Your task to perform on an android device: all mails in gmail Image 0: 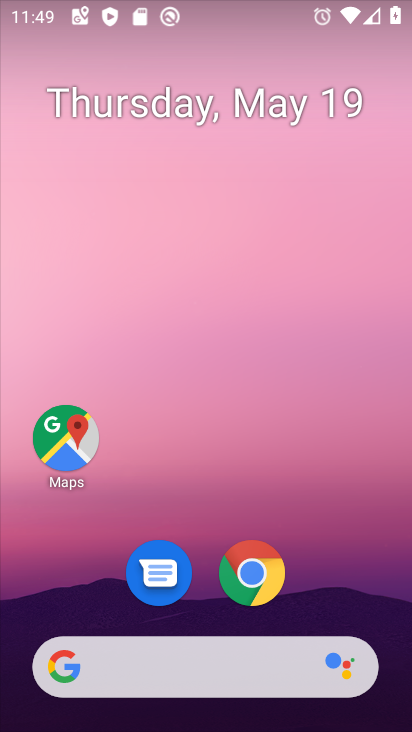
Step 0: drag from (209, 598) to (226, 108)
Your task to perform on an android device: all mails in gmail Image 1: 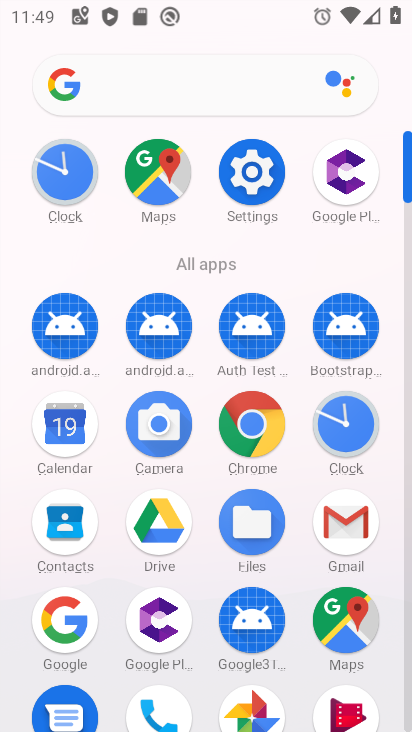
Step 1: click (343, 517)
Your task to perform on an android device: all mails in gmail Image 2: 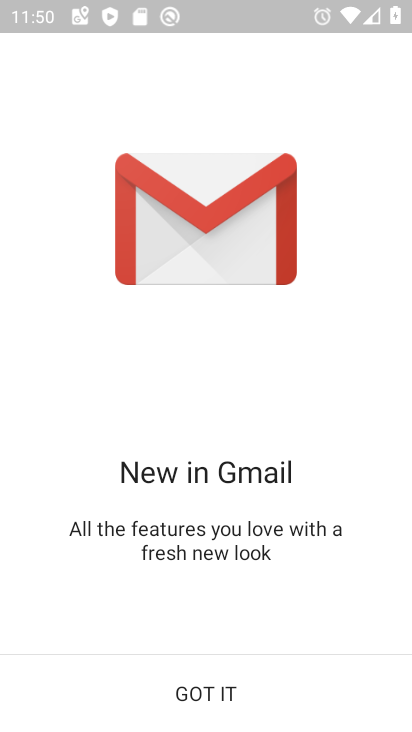
Step 2: click (227, 690)
Your task to perform on an android device: all mails in gmail Image 3: 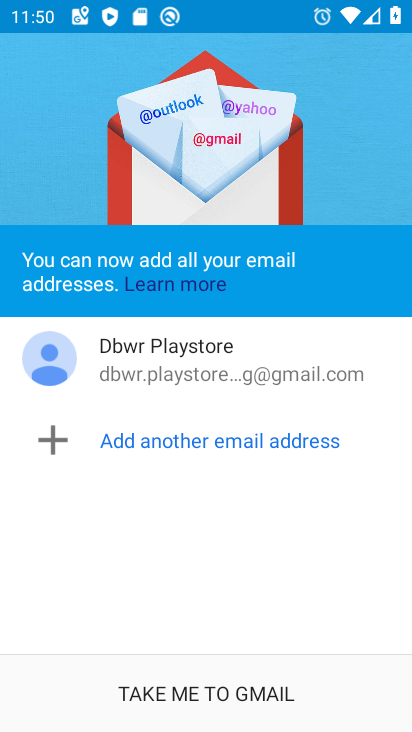
Step 3: click (232, 692)
Your task to perform on an android device: all mails in gmail Image 4: 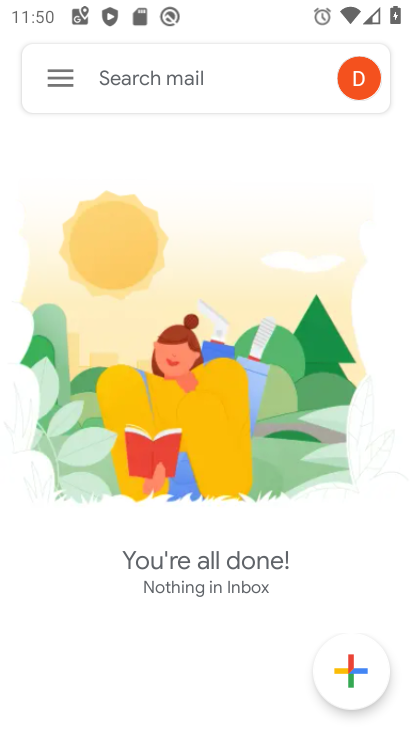
Step 4: click (52, 76)
Your task to perform on an android device: all mails in gmail Image 5: 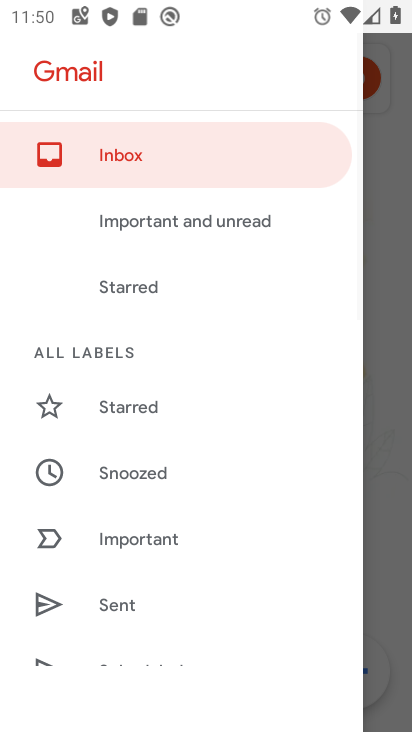
Step 5: drag from (122, 571) to (155, 225)
Your task to perform on an android device: all mails in gmail Image 6: 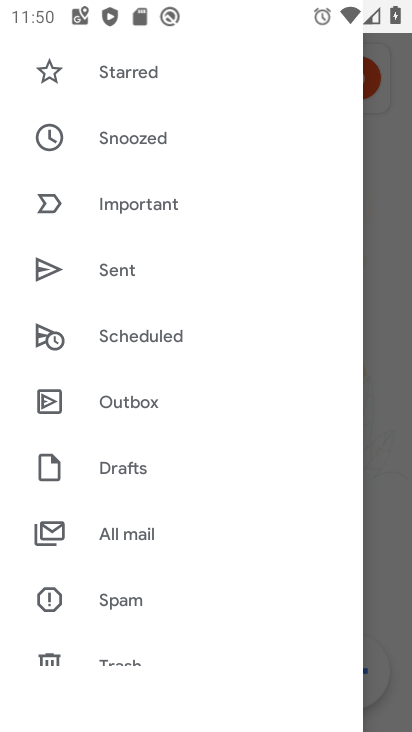
Step 6: click (137, 539)
Your task to perform on an android device: all mails in gmail Image 7: 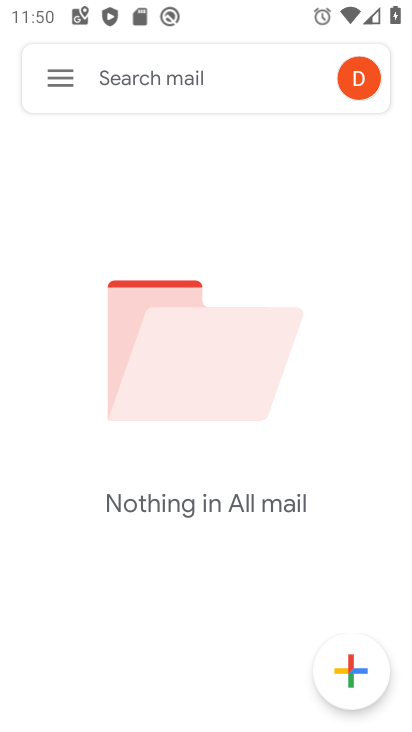
Step 7: task complete